Your task to perform on an android device: move an email to a new category in the gmail app Image 0: 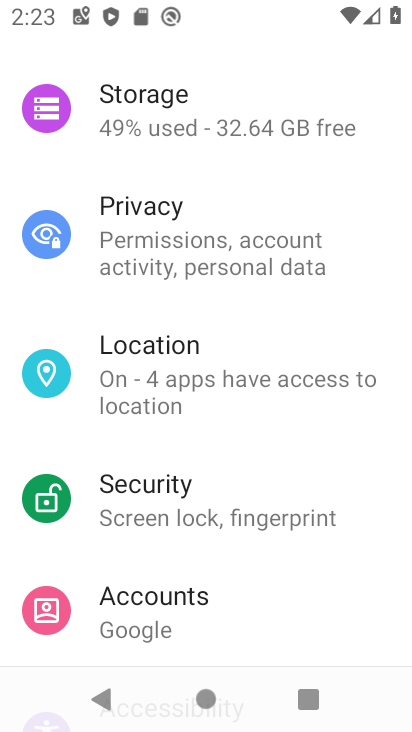
Step 0: press home button
Your task to perform on an android device: move an email to a new category in the gmail app Image 1: 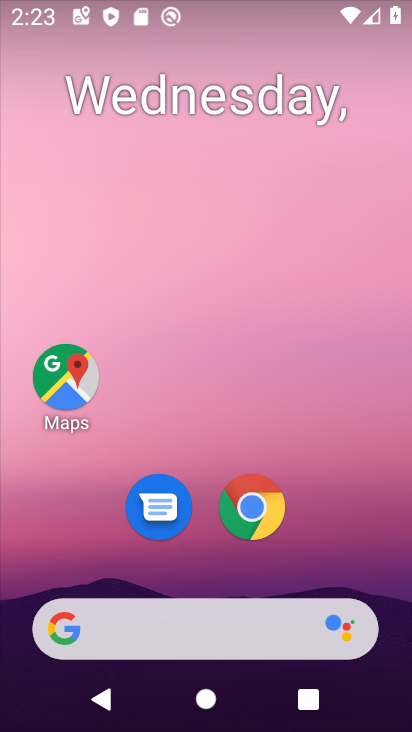
Step 1: drag from (308, 540) to (261, 122)
Your task to perform on an android device: move an email to a new category in the gmail app Image 2: 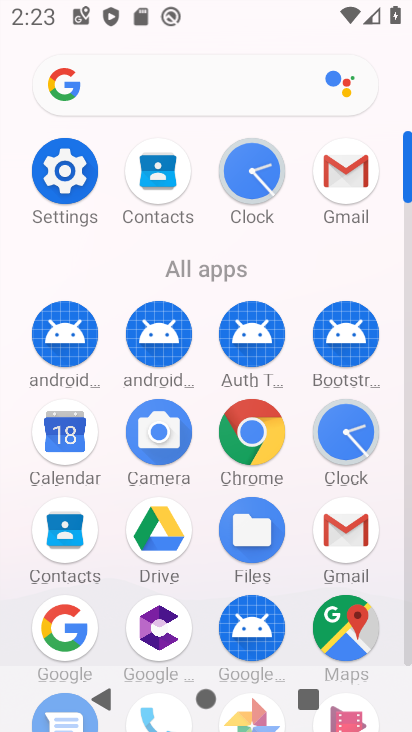
Step 2: click (328, 180)
Your task to perform on an android device: move an email to a new category in the gmail app Image 3: 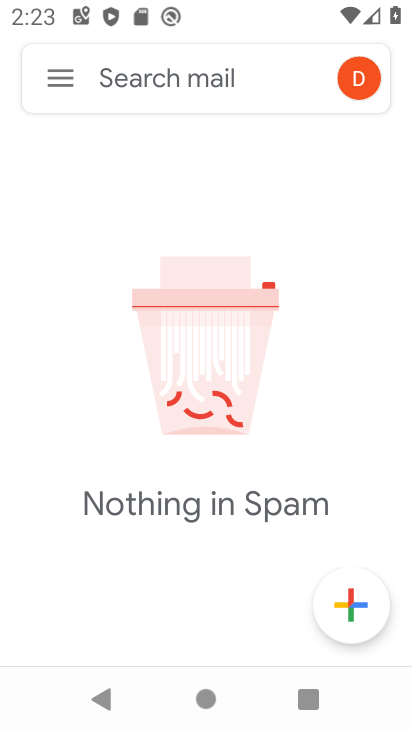
Step 3: click (65, 74)
Your task to perform on an android device: move an email to a new category in the gmail app Image 4: 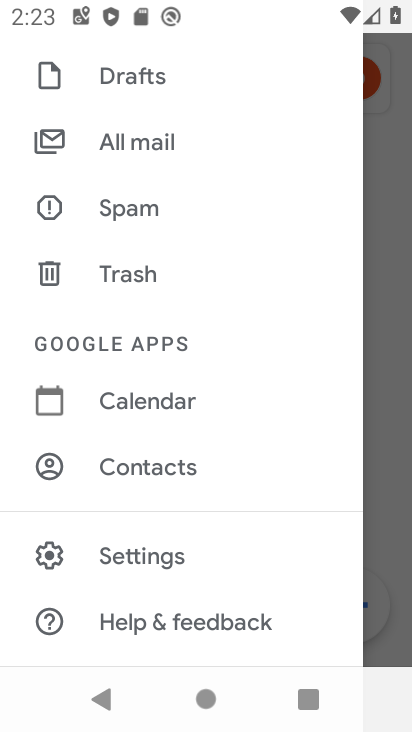
Step 4: drag from (257, 486) to (245, 258)
Your task to perform on an android device: move an email to a new category in the gmail app Image 5: 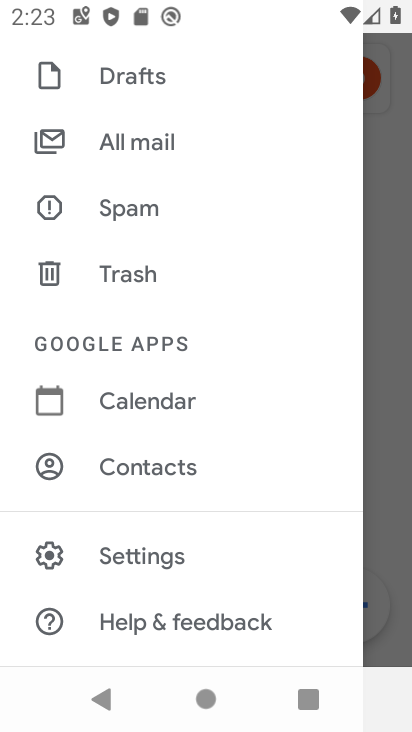
Step 5: click (164, 555)
Your task to perform on an android device: move an email to a new category in the gmail app Image 6: 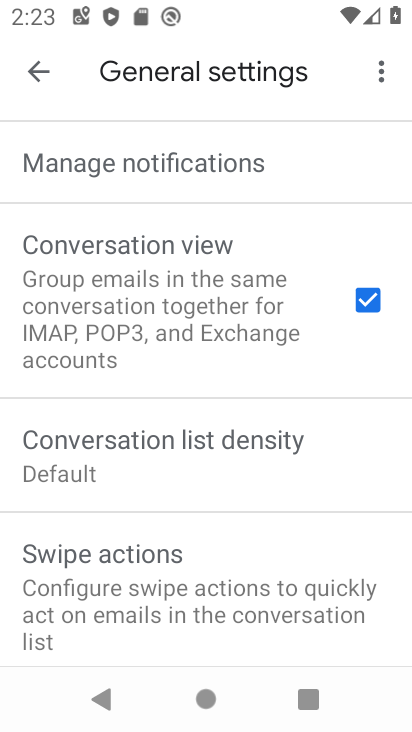
Step 6: drag from (178, 603) to (202, 344)
Your task to perform on an android device: move an email to a new category in the gmail app Image 7: 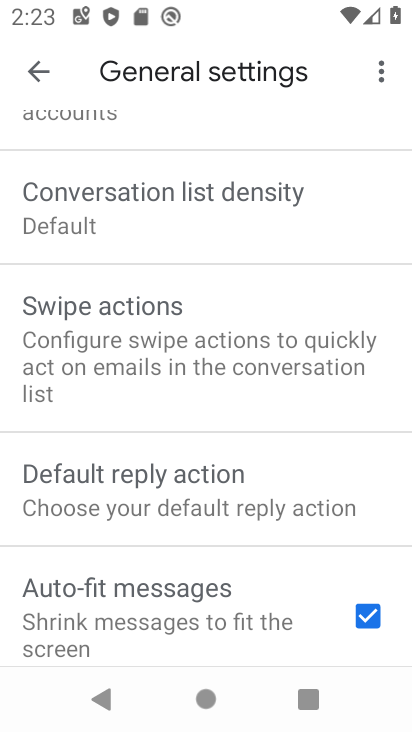
Step 7: drag from (167, 586) to (176, 249)
Your task to perform on an android device: move an email to a new category in the gmail app Image 8: 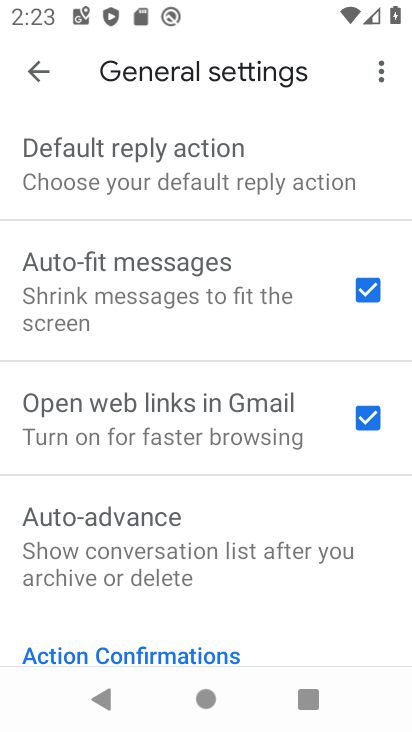
Step 8: drag from (144, 595) to (216, 189)
Your task to perform on an android device: move an email to a new category in the gmail app Image 9: 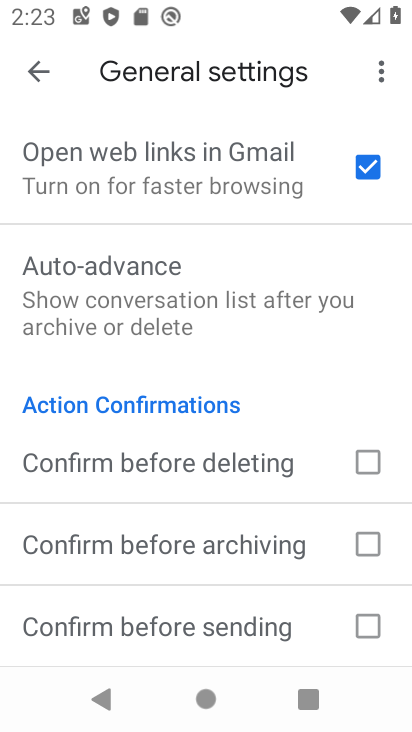
Step 9: drag from (186, 614) to (224, 356)
Your task to perform on an android device: move an email to a new category in the gmail app Image 10: 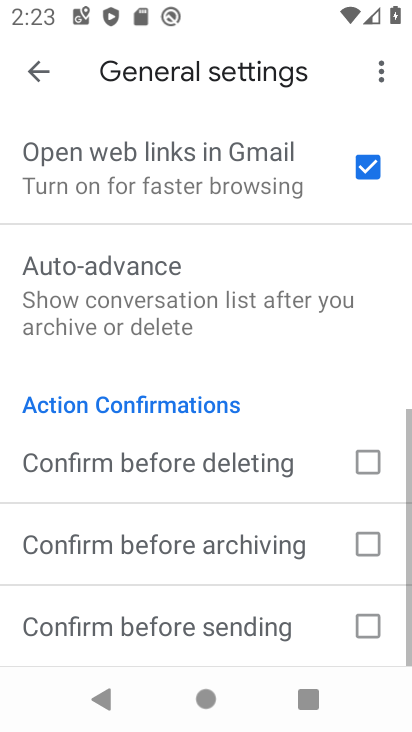
Step 10: drag from (203, 234) to (244, 561)
Your task to perform on an android device: move an email to a new category in the gmail app Image 11: 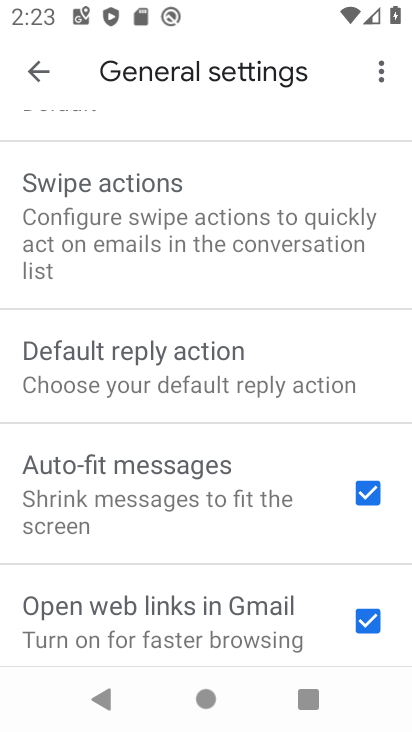
Step 11: drag from (189, 276) to (250, 605)
Your task to perform on an android device: move an email to a new category in the gmail app Image 12: 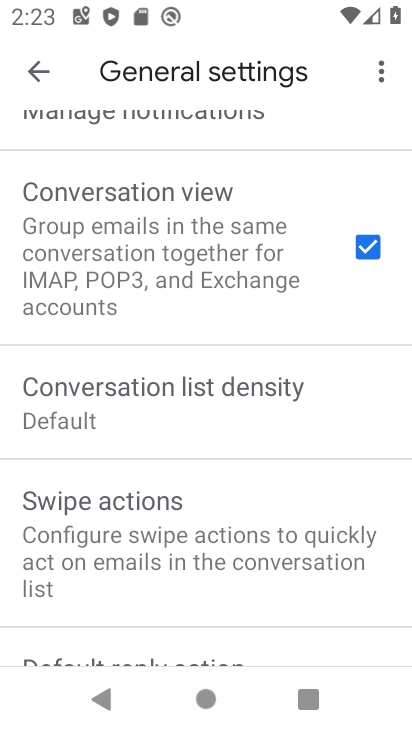
Step 12: drag from (227, 249) to (226, 544)
Your task to perform on an android device: move an email to a new category in the gmail app Image 13: 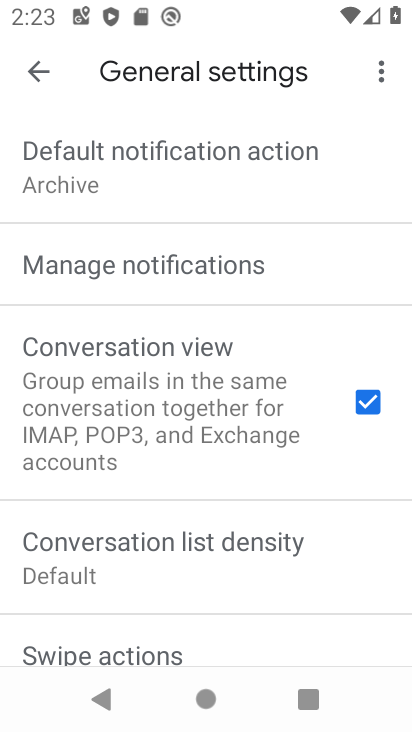
Step 13: drag from (147, 158) to (169, 292)
Your task to perform on an android device: move an email to a new category in the gmail app Image 14: 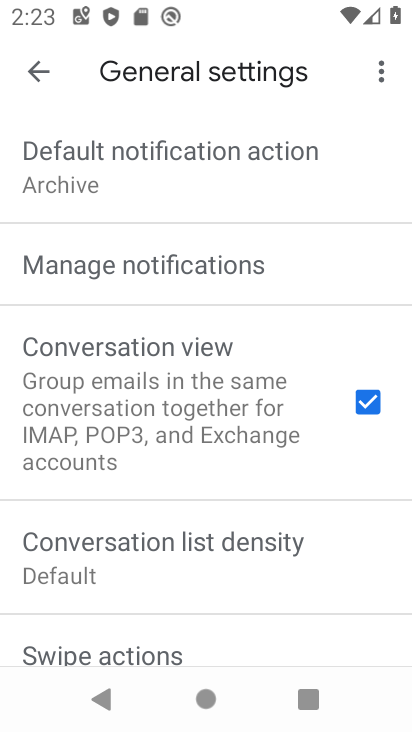
Step 14: click (373, 65)
Your task to perform on an android device: move an email to a new category in the gmail app Image 15: 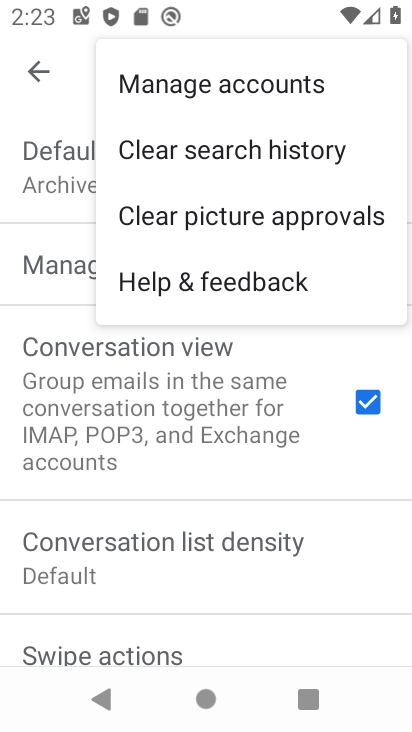
Step 15: task complete